Your task to perform on an android device: Open notification settings Image 0: 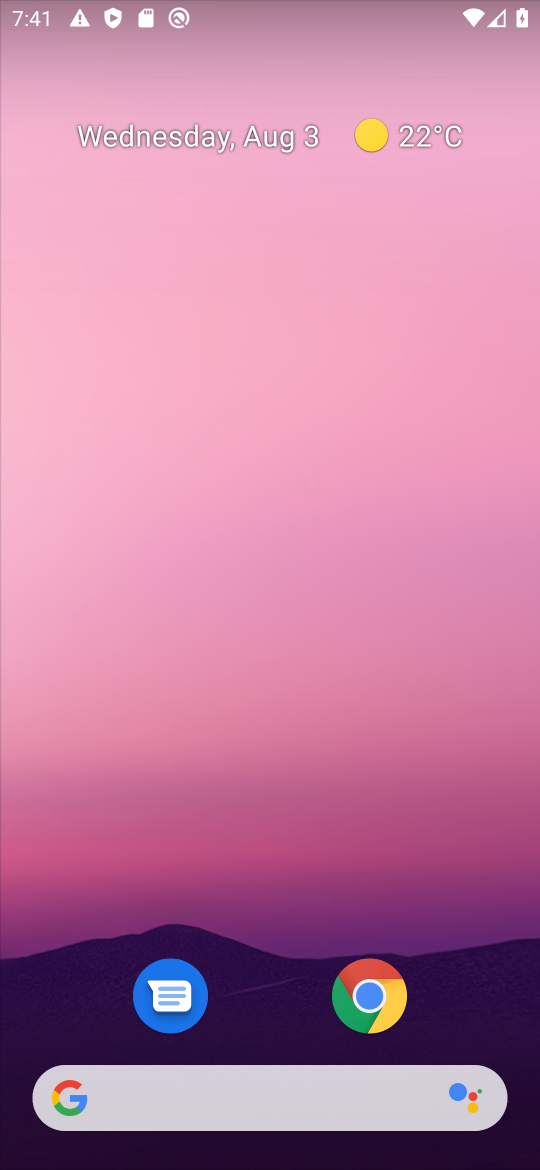
Step 0: drag from (277, 1024) to (222, 184)
Your task to perform on an android device: Open notification settings Image 1: 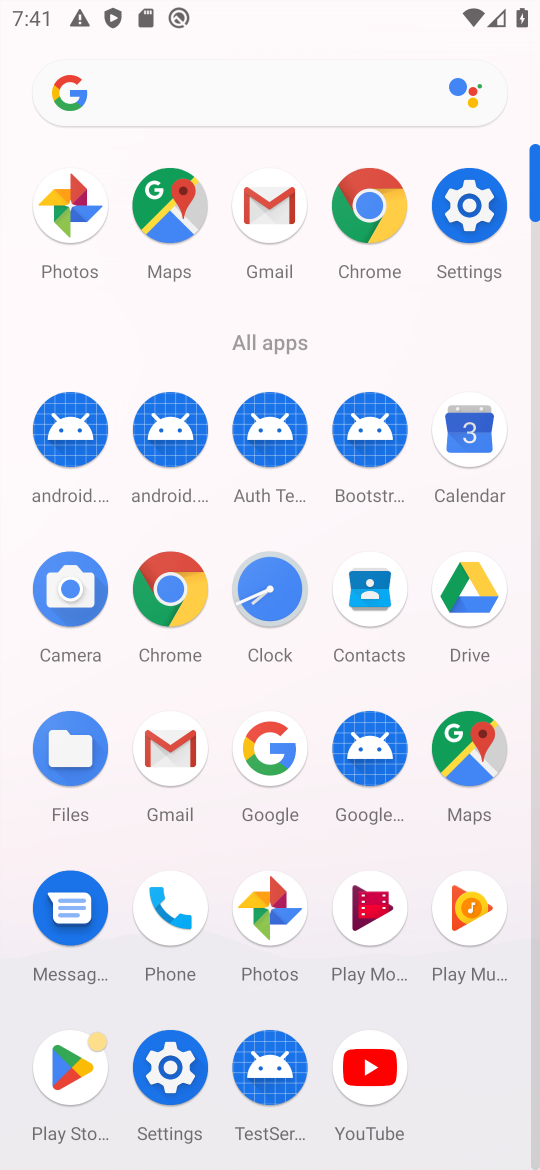
Step 1: click (466, 213)
Your task to perform on an android device: Open notification settings Image 2: 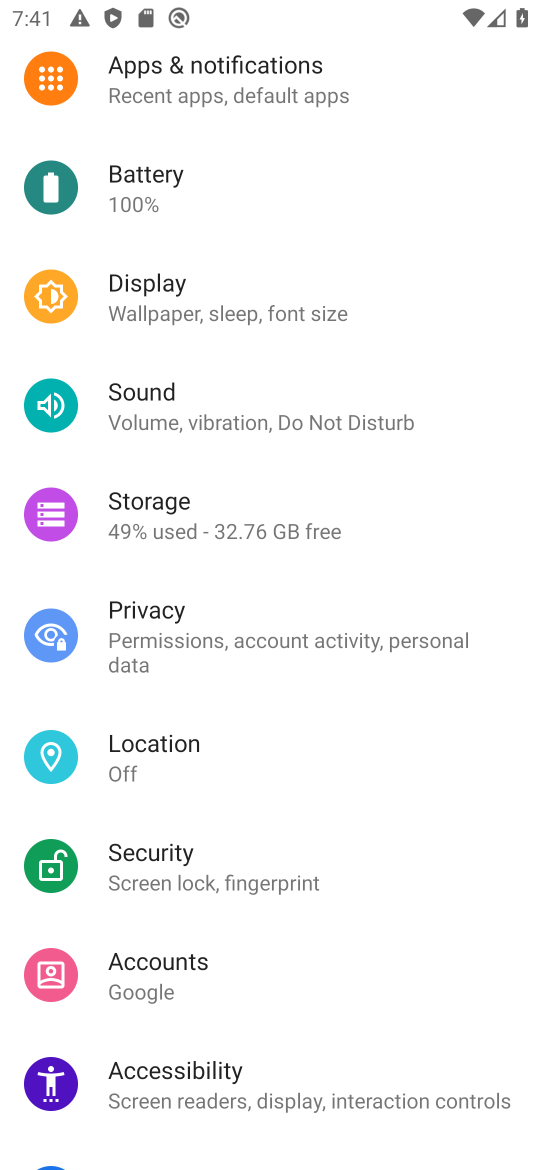
Step 2: click (216, 97)
Your task to perform on an android device: Open notification settings Image 3: 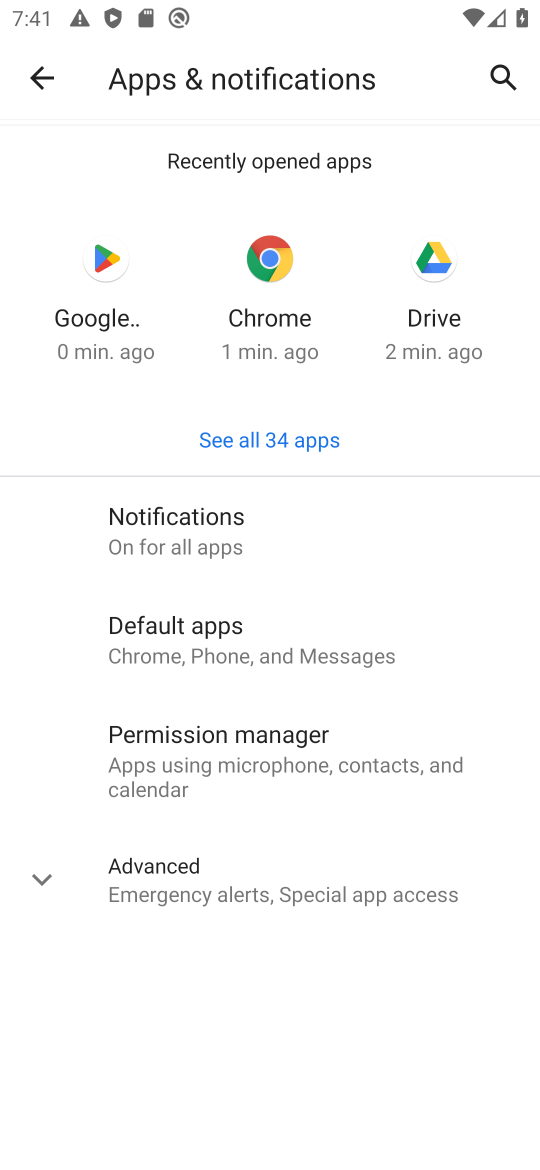
Step 3: click (163, 531)
Your task to perform on an android device: Open notification settings Image 4: 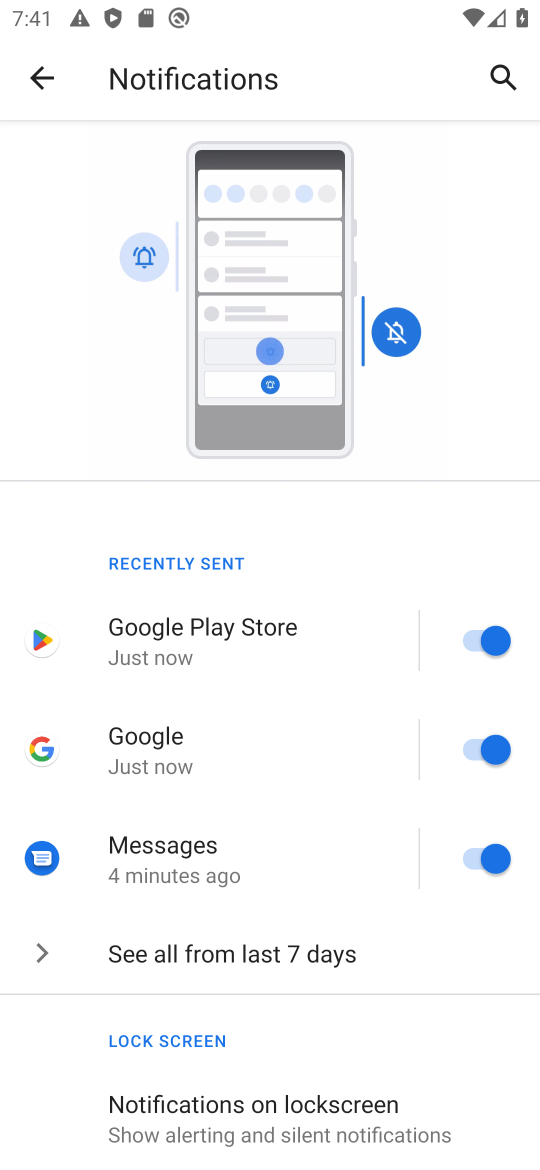
Step 4: task complete